Your task to perform on an android device: Is it going to rain tomorrow? Image 0: 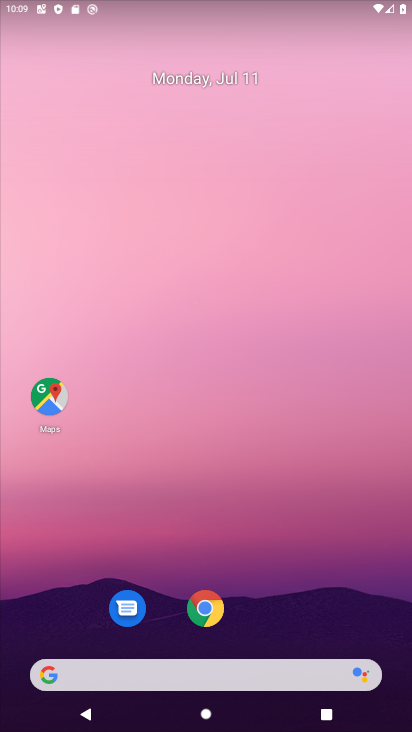
Step 0: click (161, 678)
Your task to perform on an android device: Is it going to rain tomorrow? Image 1: 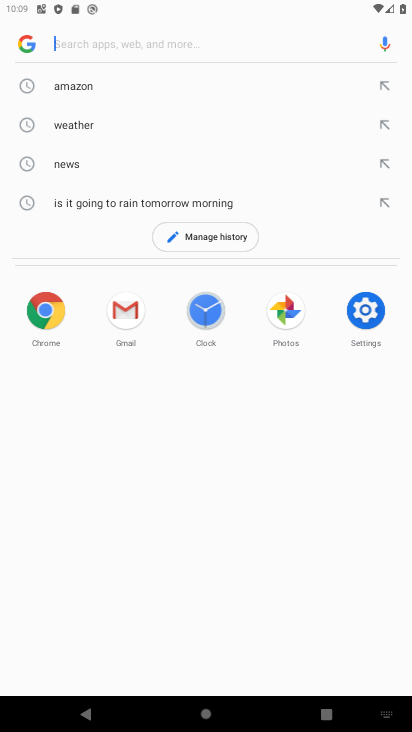
Step 1: type "Is it going to rain tomorrow?"
Your task to perform on an android device: Is it going to rain tomorrow? Image 2: 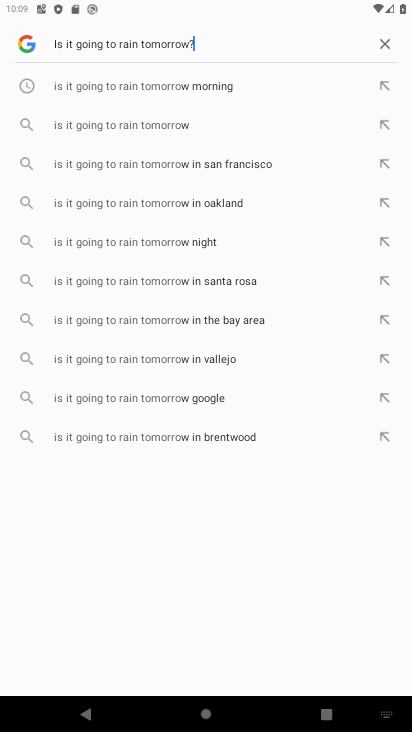
Step 2: type ""
Your task to perform on an android device: Is it going to rain tomorrow? Image 3: 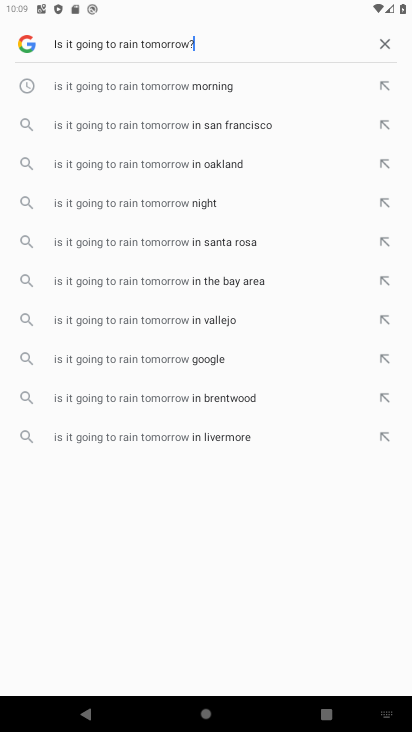
Step 3: type ""
Your task to perform on an android device: Is it going to rain tomorrow? Image 4: 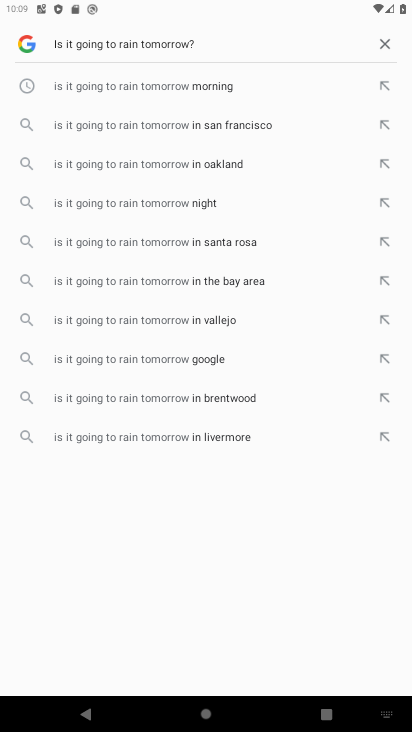
Step 4: type ""
Your task to perform on an android device: Is it going to rain tomorrow? Image 5: 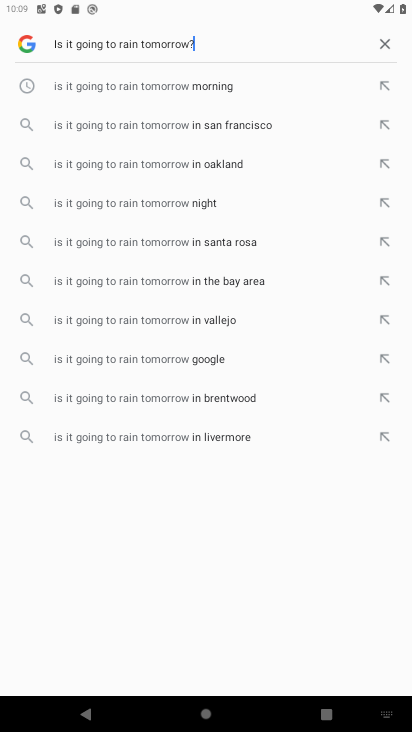
Step 5: task complete